Your task to perform on an android device: open sync settings in chrome Image 0: 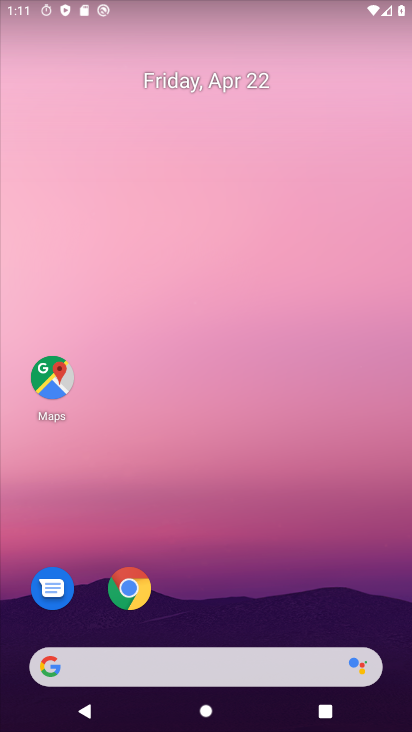
Step 0: drag from (343, 504) to (296, 132)
Your task to perform on an android device: open sync settings in chrome Image 1: 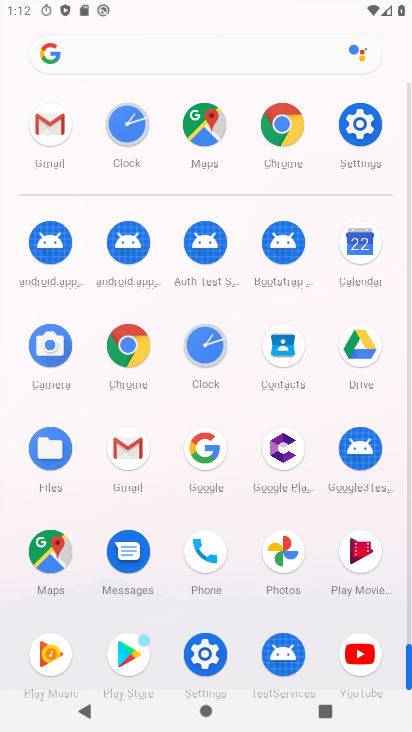
Step 1: click (114, 349)
Your task to perform on an android device: open sync settings in chrome Image 2: 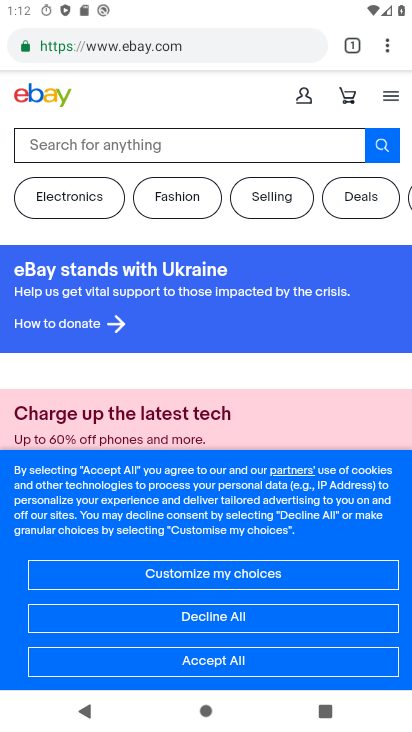
Step 2: drag from (391, 47) to (252, 605)
Your task to perform on an android device: open sync settings in chrome Image 3: 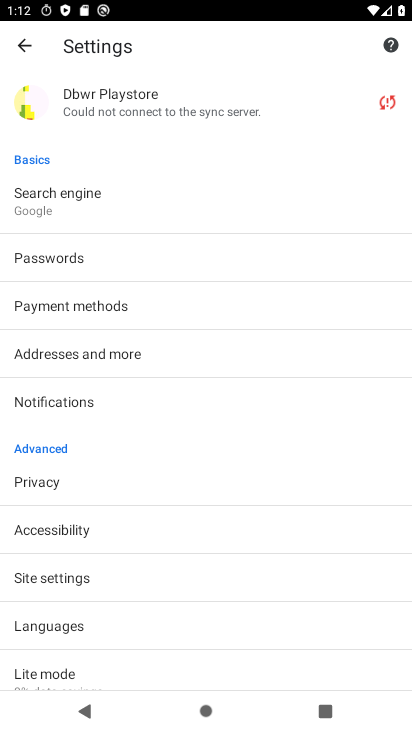
Step 3: drag from (255, 621) to (274, 376)
Your task to perform on an android device: open sync settings in chrome Image 4: 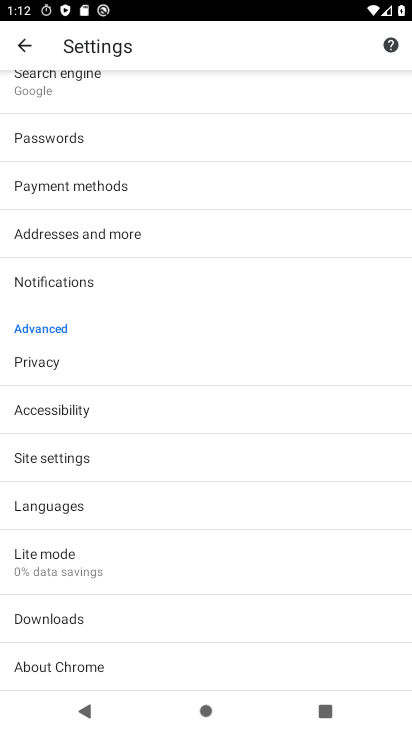
Step 4: click (166, 459)
Your task to perform on an android device: open sync settings in chrome Image 5: 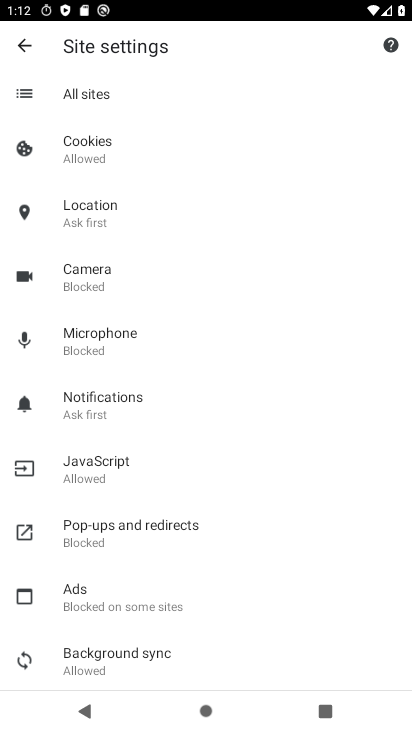
Step 5: click (154, 650)
Your task to perform on an android device: open sync settings in chrome Image 6: 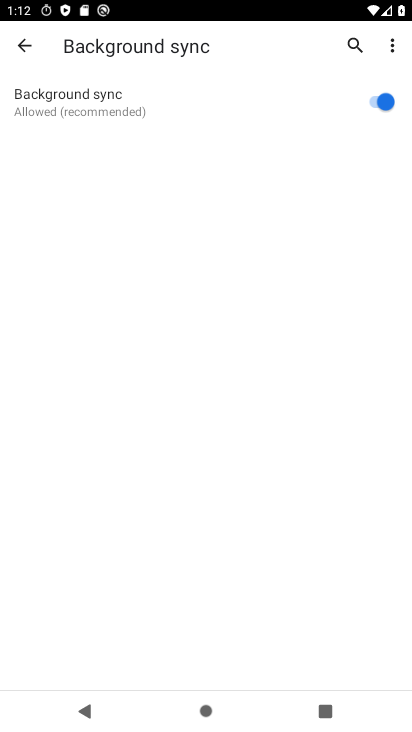
Step 6: task complete